Your task to perform on an android device: Open calendar and show me the second week of next month Image 0: 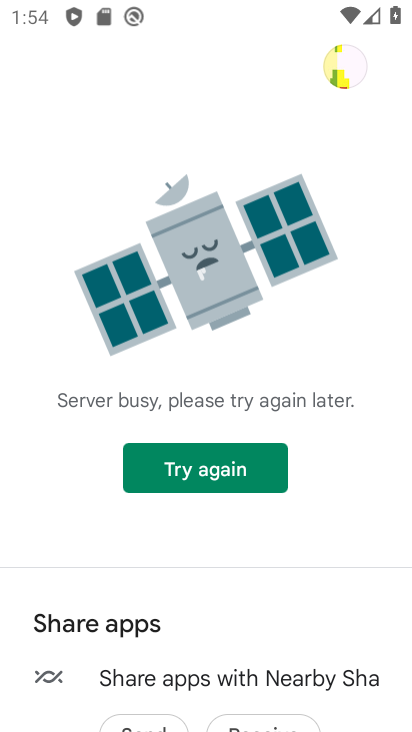
Step 0: press home button
Your task to perform on an android device: Open calendar and show me the second week of next month Image 1: 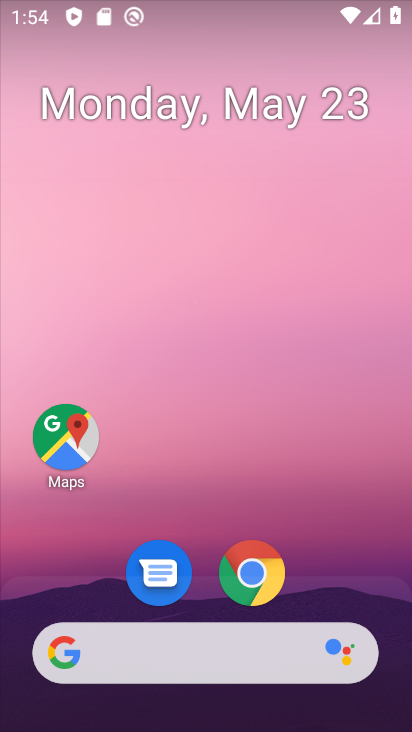
Step 1: drag from (387, 611) to (381, 108)
Your task to perform on an android device: Open calendar and show me the second week of next month Image 2: 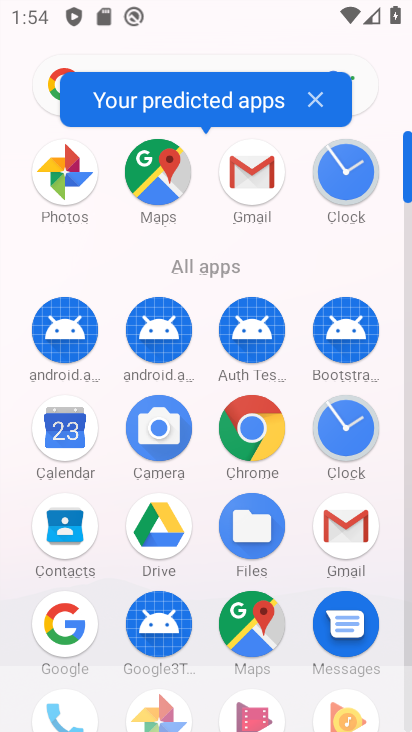
Step 2: click (76, 432)
Your task to perform on an android device: Open calendar and show me the second week of next month Image 3: 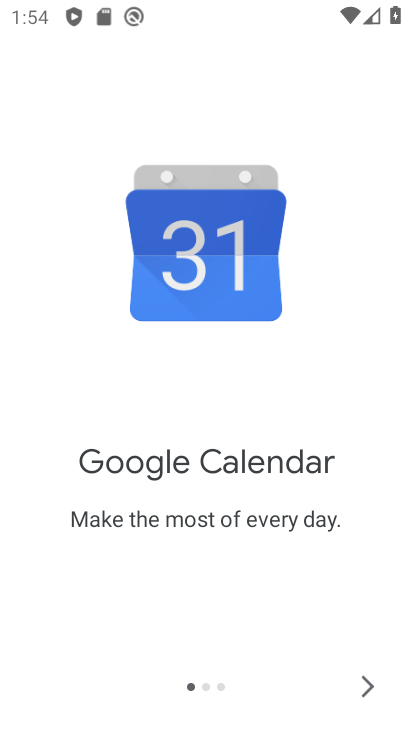
Step 3: click (364, 686)
Your task to perform on an android device: Open calendar and show me the second week of next month Image 4: 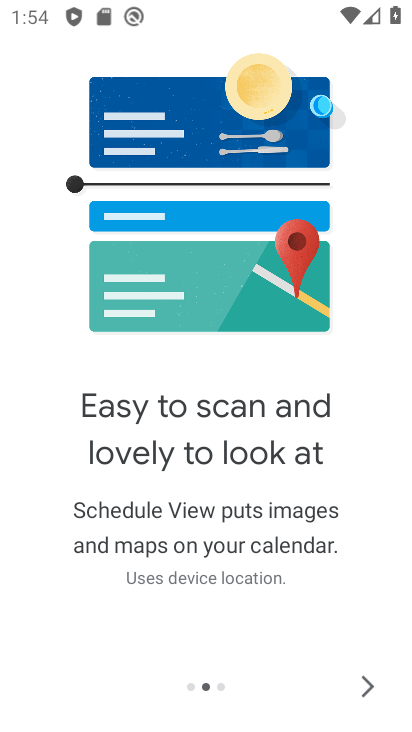
Step 4: click (364, 686)
Your task to perform on an android device: Open calendar and show me the second week of next month Image 5: 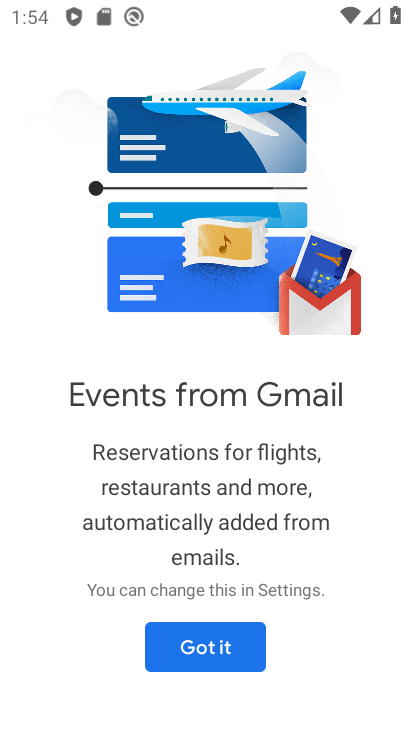
Step 5: click (210, 666)
Your task to perform on an android device: Open calendar and show me the second week of next month Image 6: 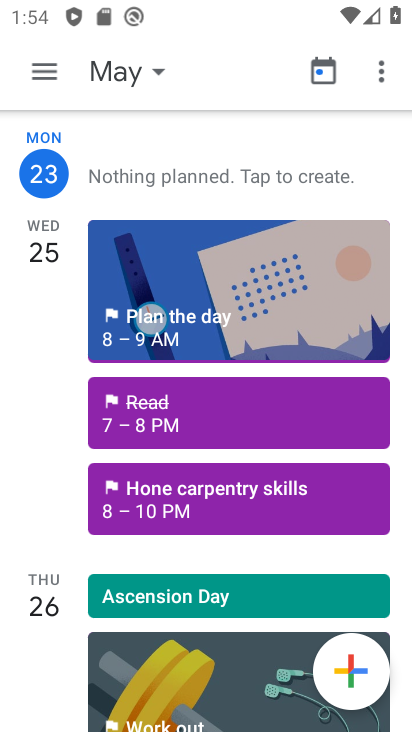
Step 6: click (157, 72)
Your task to perform on an android device: Open calendar and show me the second week of next month Image 7: 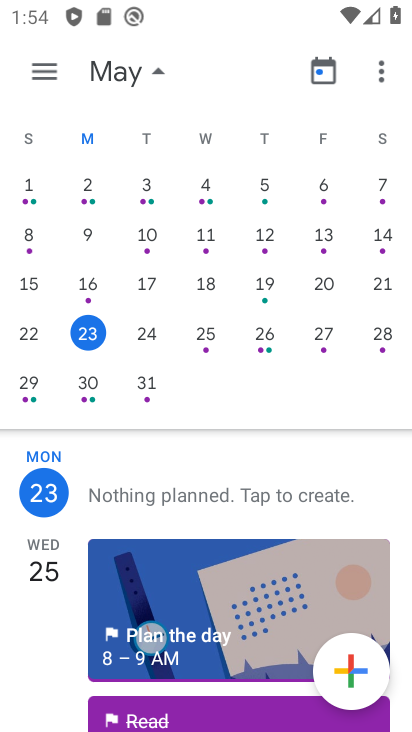
Step 7: drag from (402, 166) to (1, 155)
Your task to perform on an android device: Open calendar and show me the second week of next month Image 8: 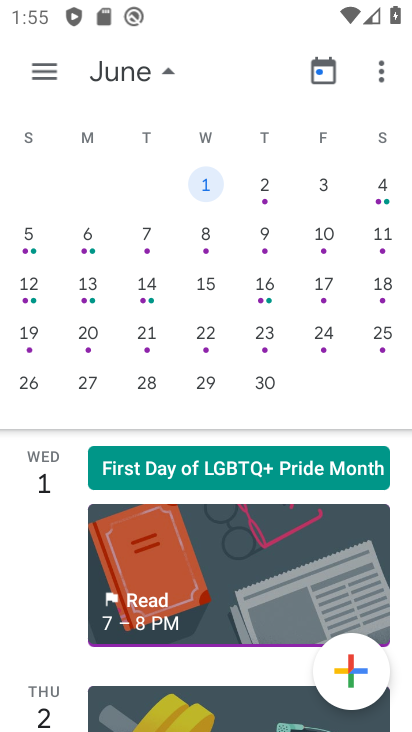
Step 8: click (83, 254)
Your task to perform on an android device: Open calendar and show me the second week of next month Image 9: 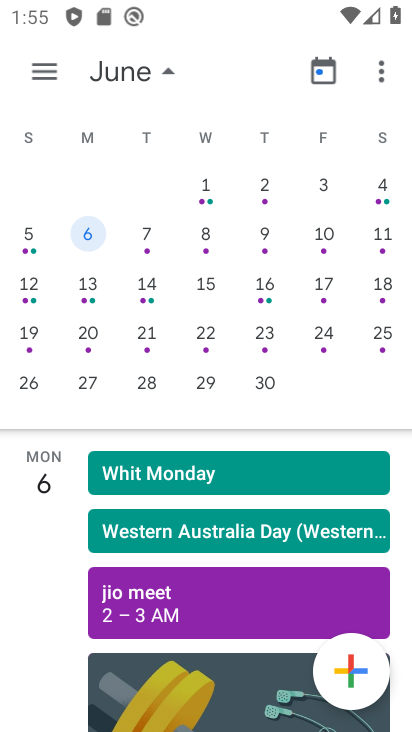
Step 9: task complete